Your task to perform on an android device: open app "Pinterest" (install if not already installed), go to login, and select forgot password Image 0: 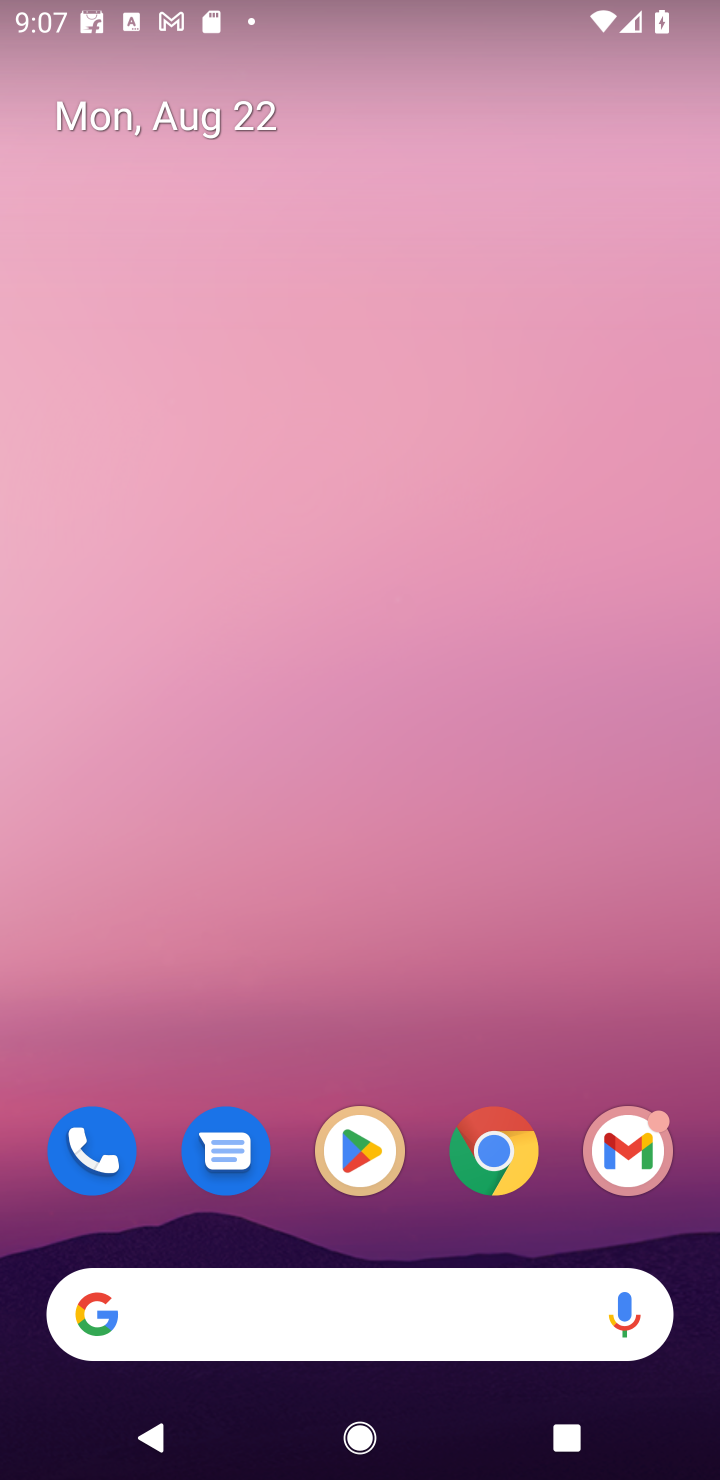
Step 0: press home button
Your task to perform on an android device: open app "Pinterest" (install if not already installed), go to login, and select forgot password Image 1: 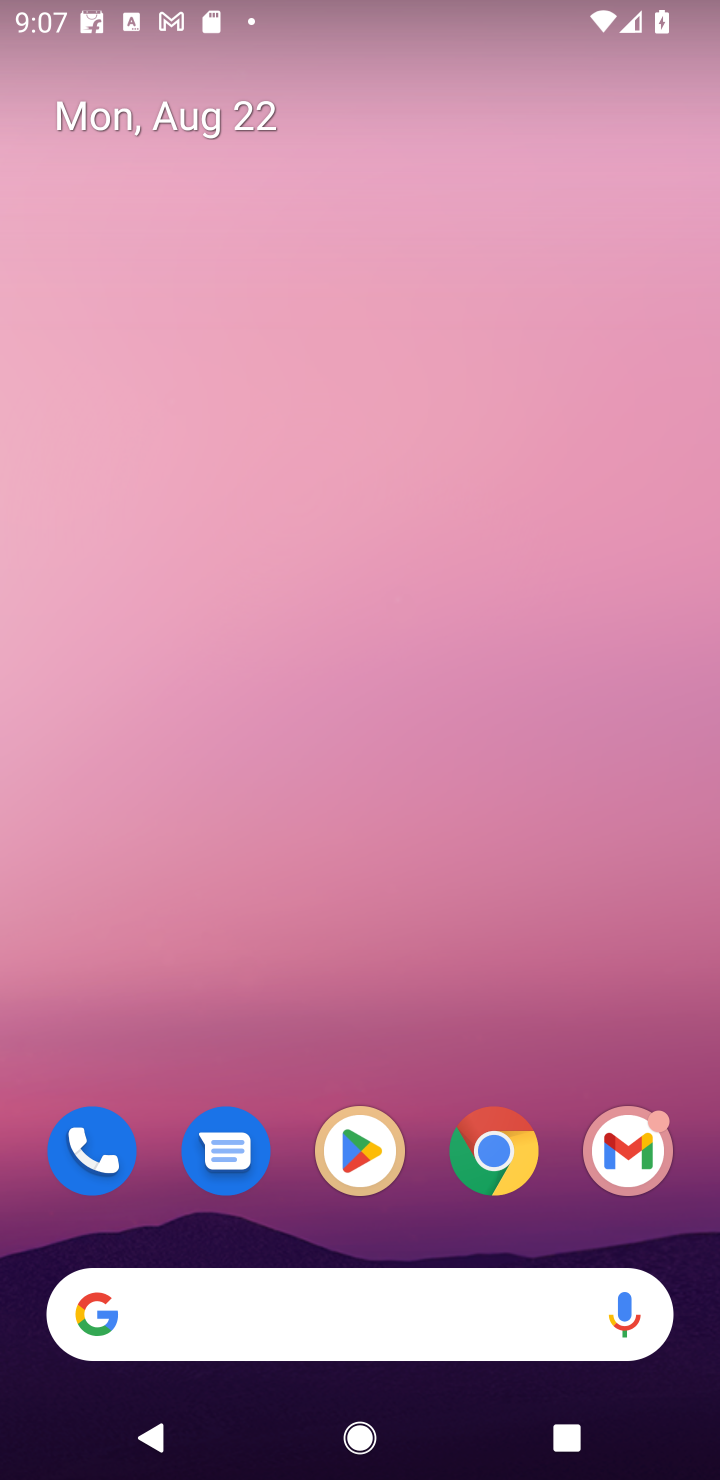
Step 1: click (363, 1151)
Your task to perform on an android device: open app "Pinterest" (install if not already installed), go to login, and select forgot password Image 2: 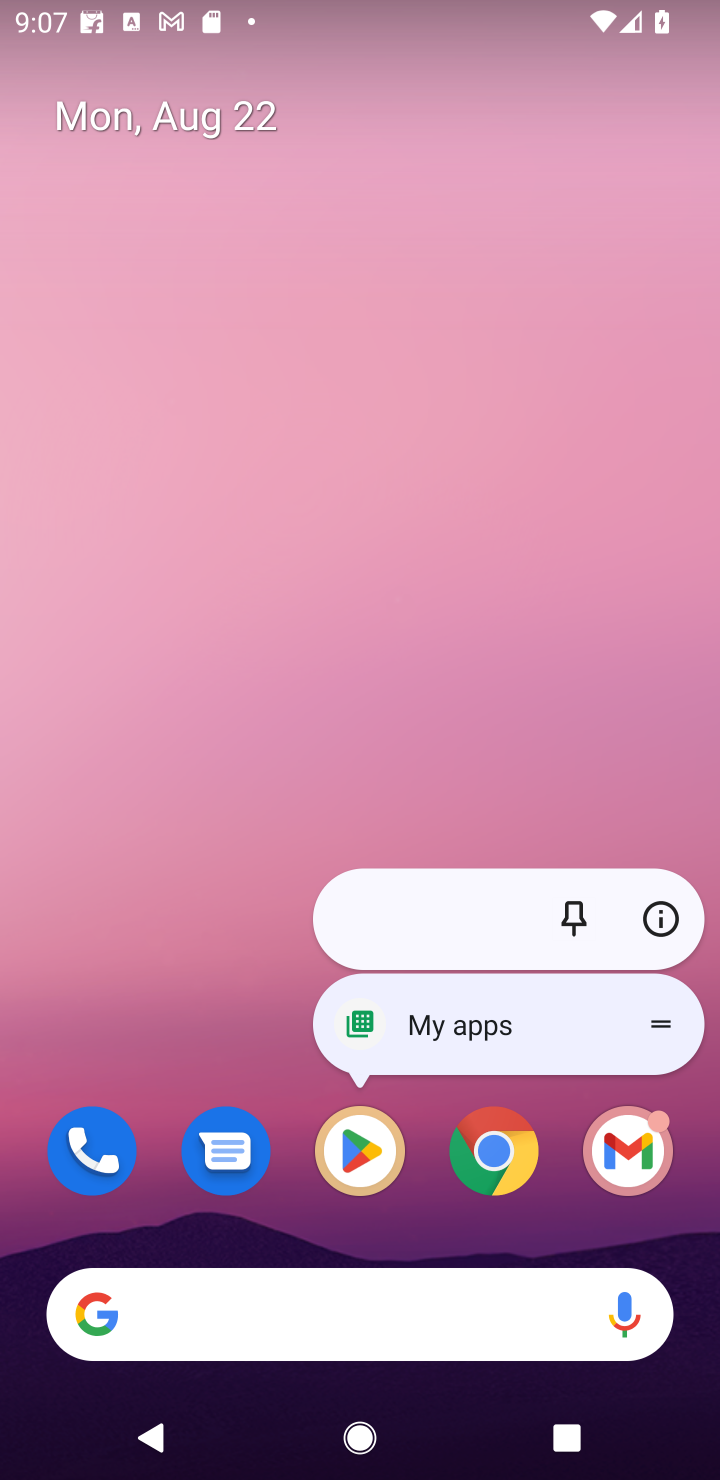
Step 2: click (363, 1155)
Your task to perform on an android device: open app "Pinterest" (install if not already installed), go to login, and select forgot password Image 3: 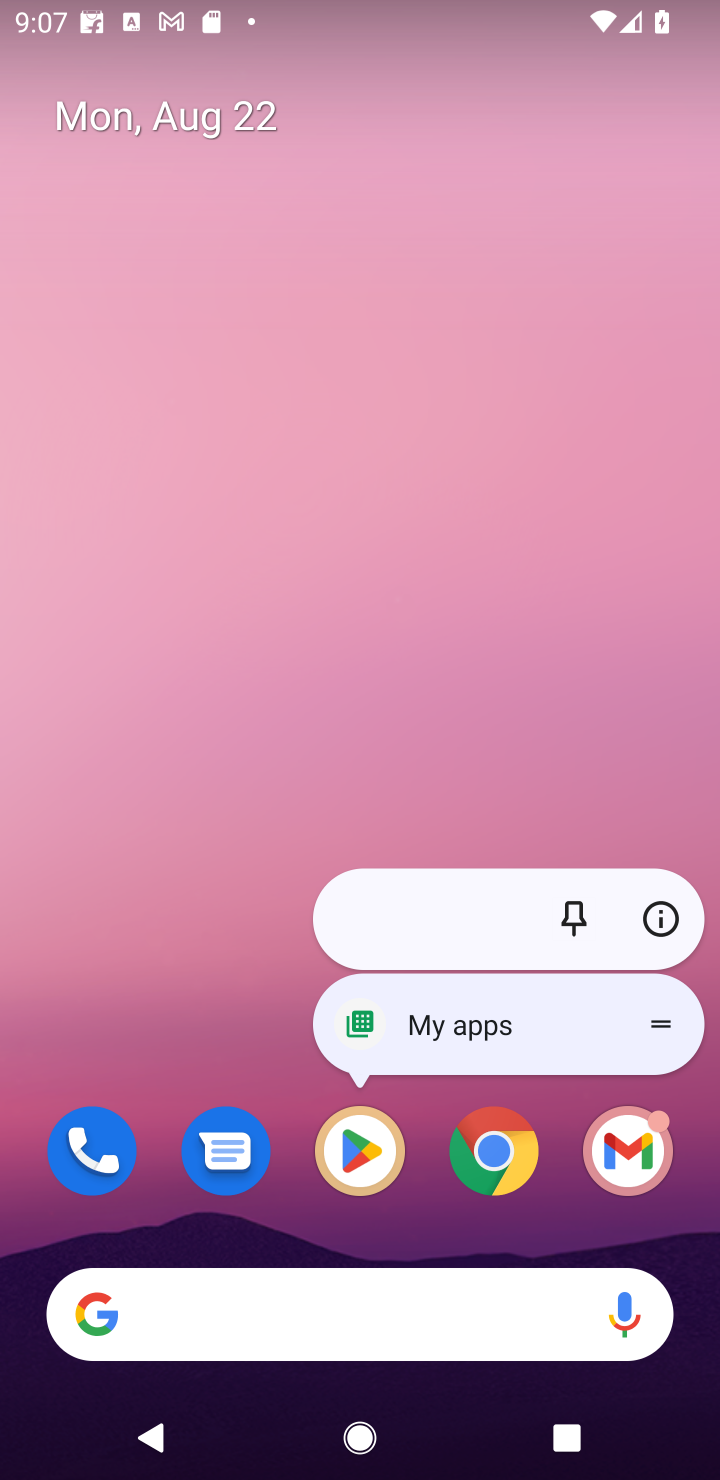
Step 3: click (363, 1162)
Your task to perform on an android device: open app "Pinterest" (install if not already installed), go to login, and select forgot password Image 4: 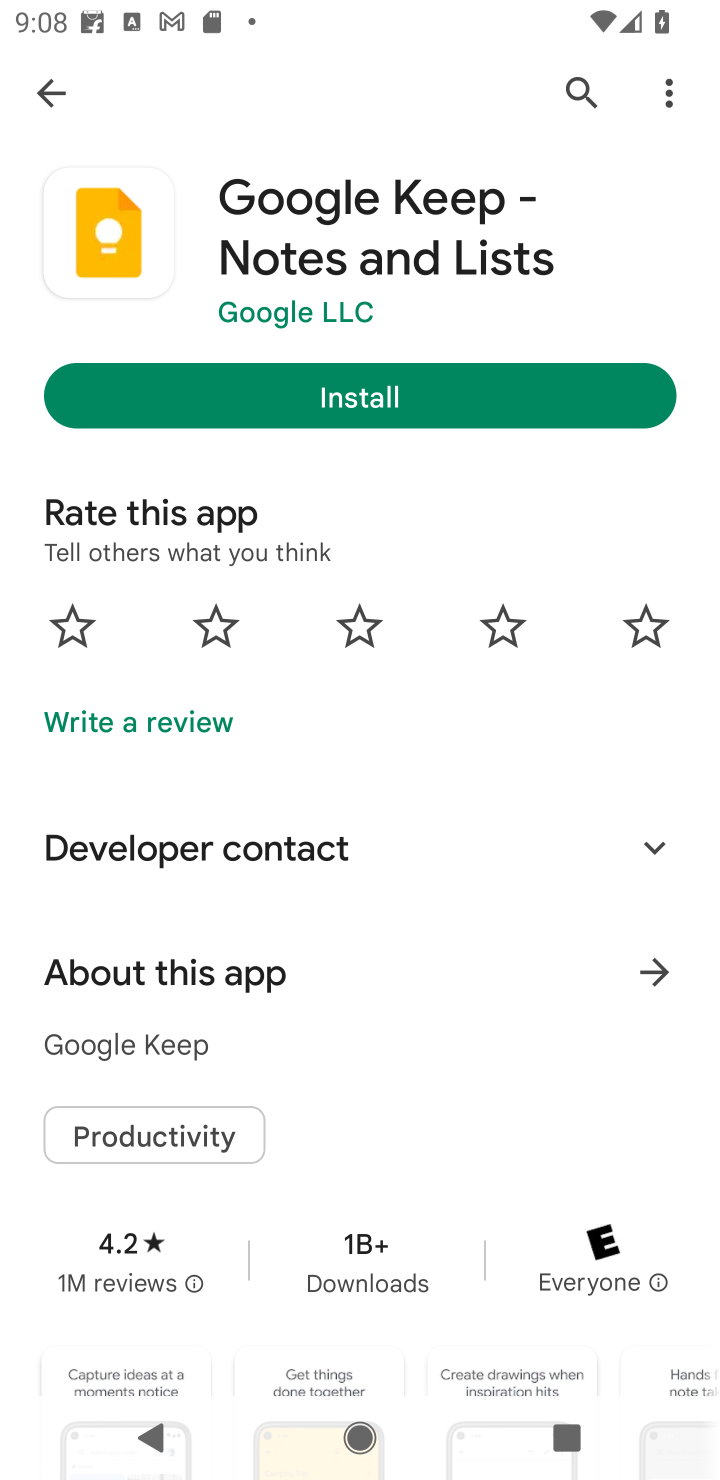
Step 4: click (577, 81)
Your task to perform on an android device: open app "Pinterest" (install if not already installed), go to login, and select forgot password Image 5: 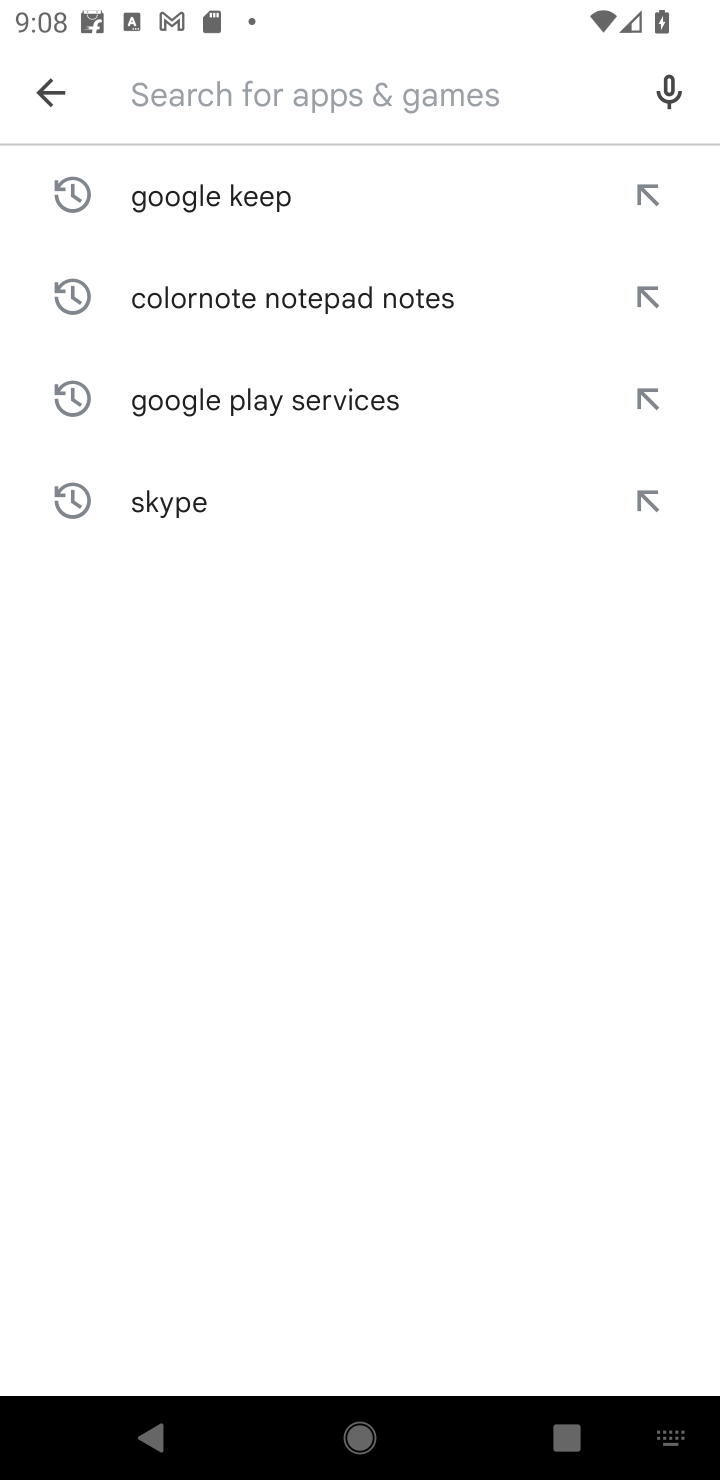
Step 5: type "Pinterest"
Your task to perform on an android device: open app "Pinterest" (install if not already installed), go to login, and select forgot password Image 6: 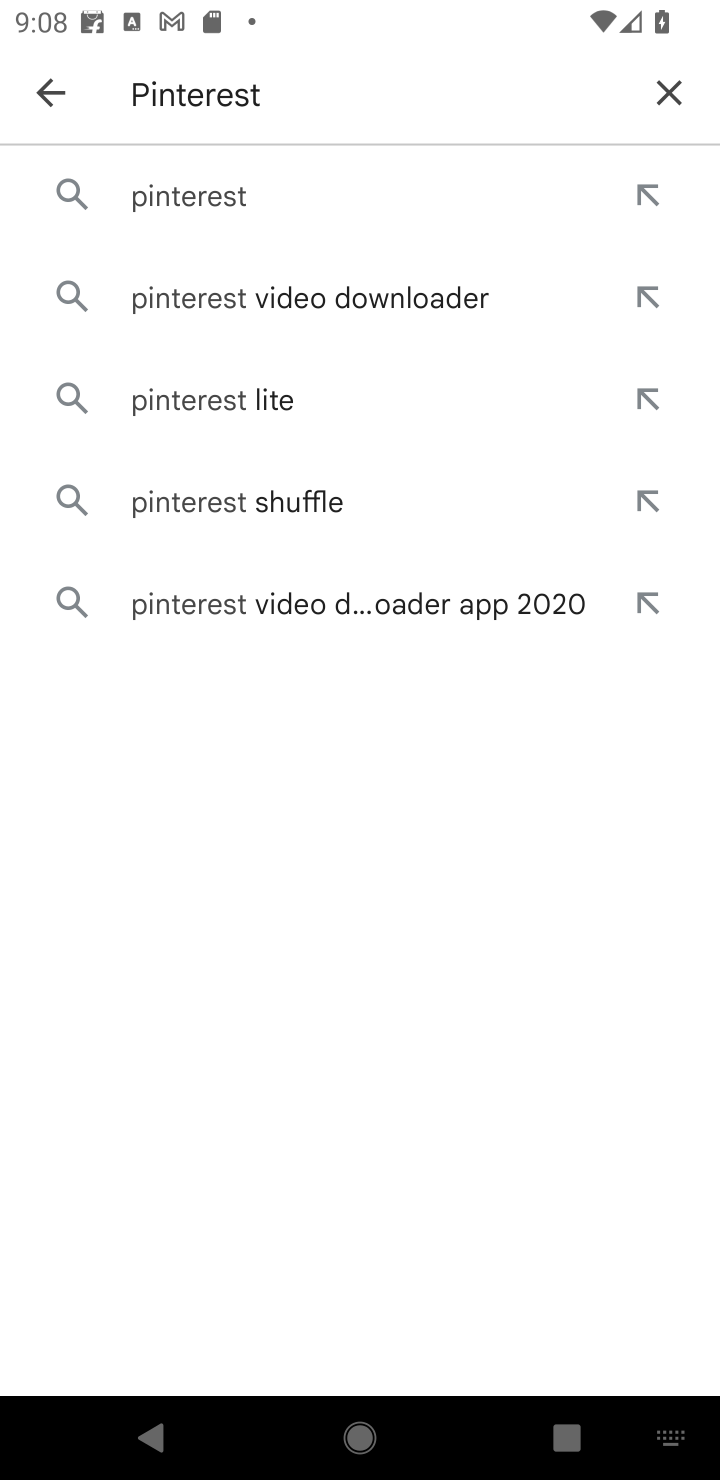
Step 6: click (170, 189)
Your task to perform on an android device: open app "Pinterest" (install if not already installed), go to login, and select forgot password Image 7: 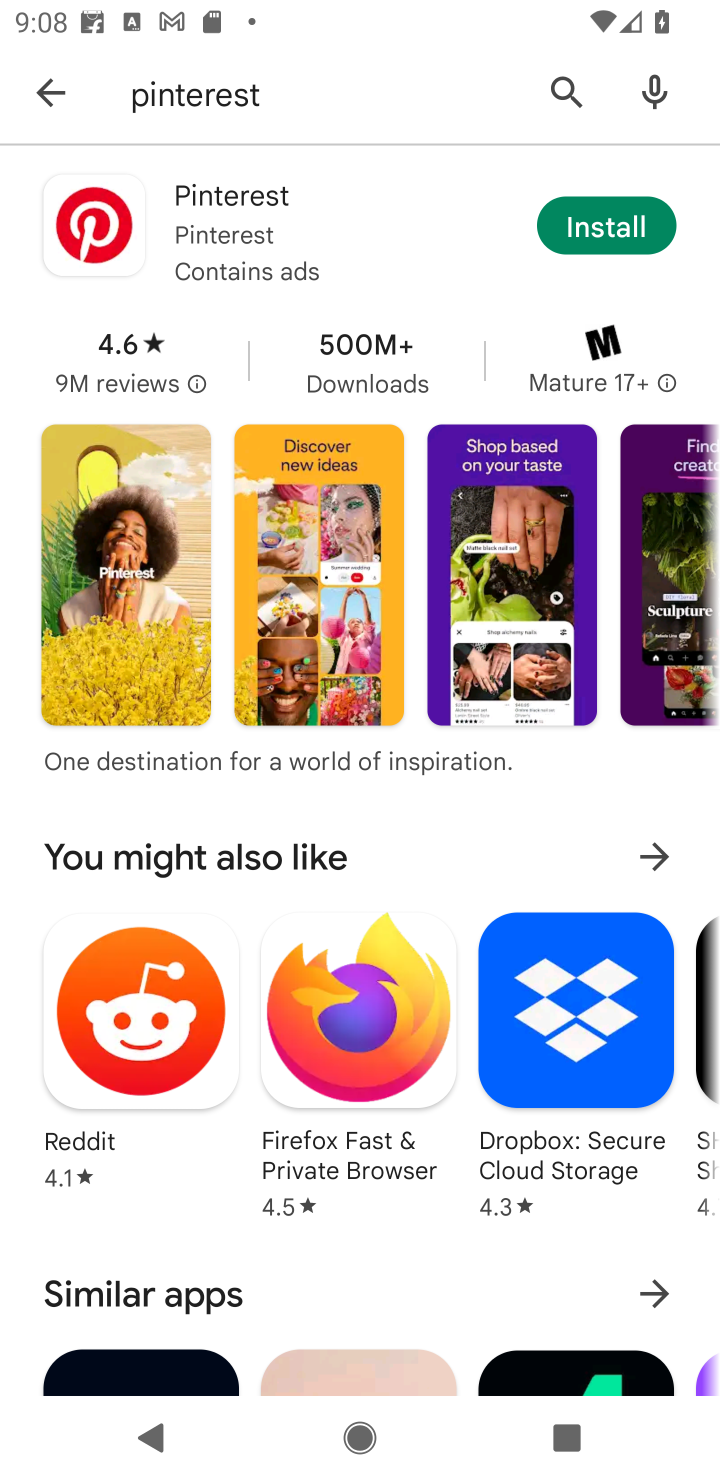
Step 7: click (622, 223)
Your task to perform on an android device: open app "Pinterest" (install if not already installed), go to login, and select forgot password Image 8: 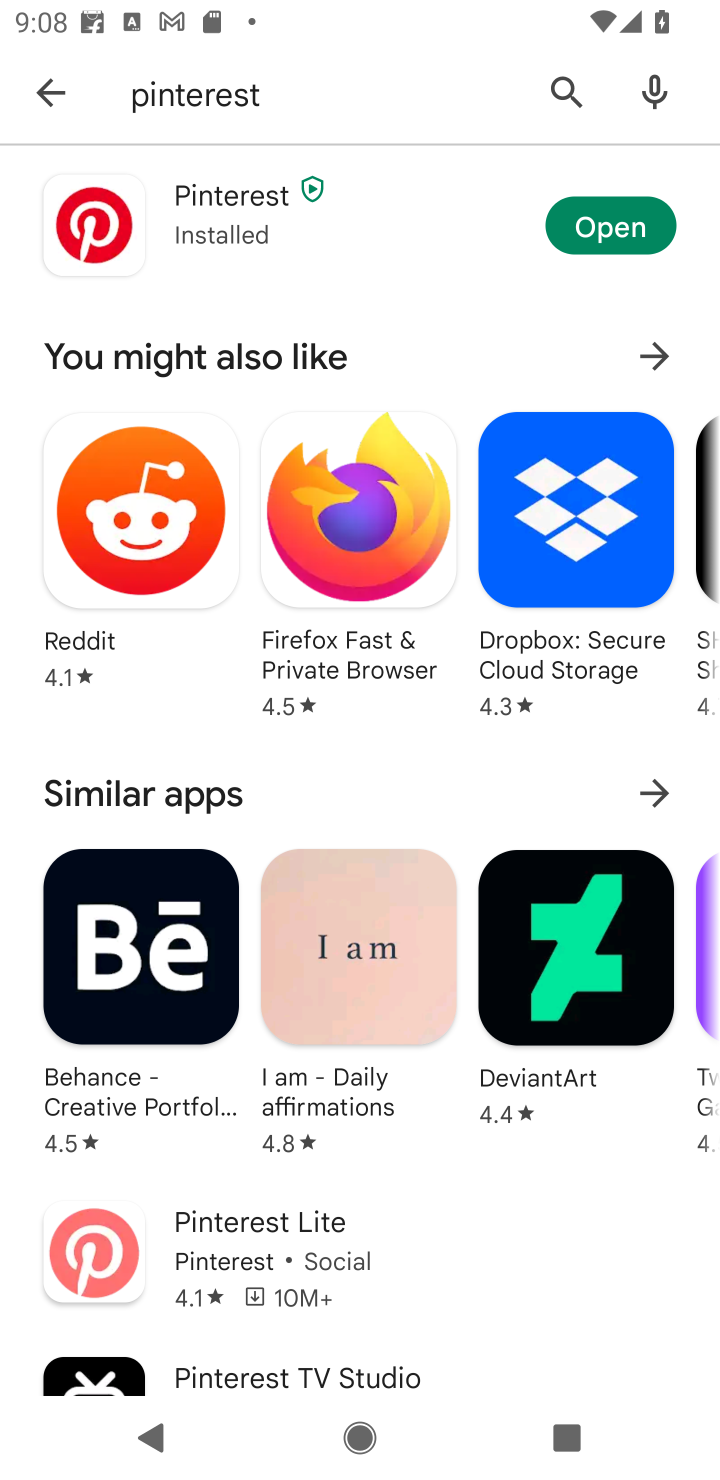
Step 8: click (636, 233)
Your task to perform on an android device: open app "Pinterest" (install if not already installed), go to login, and select forgot password Image 9: 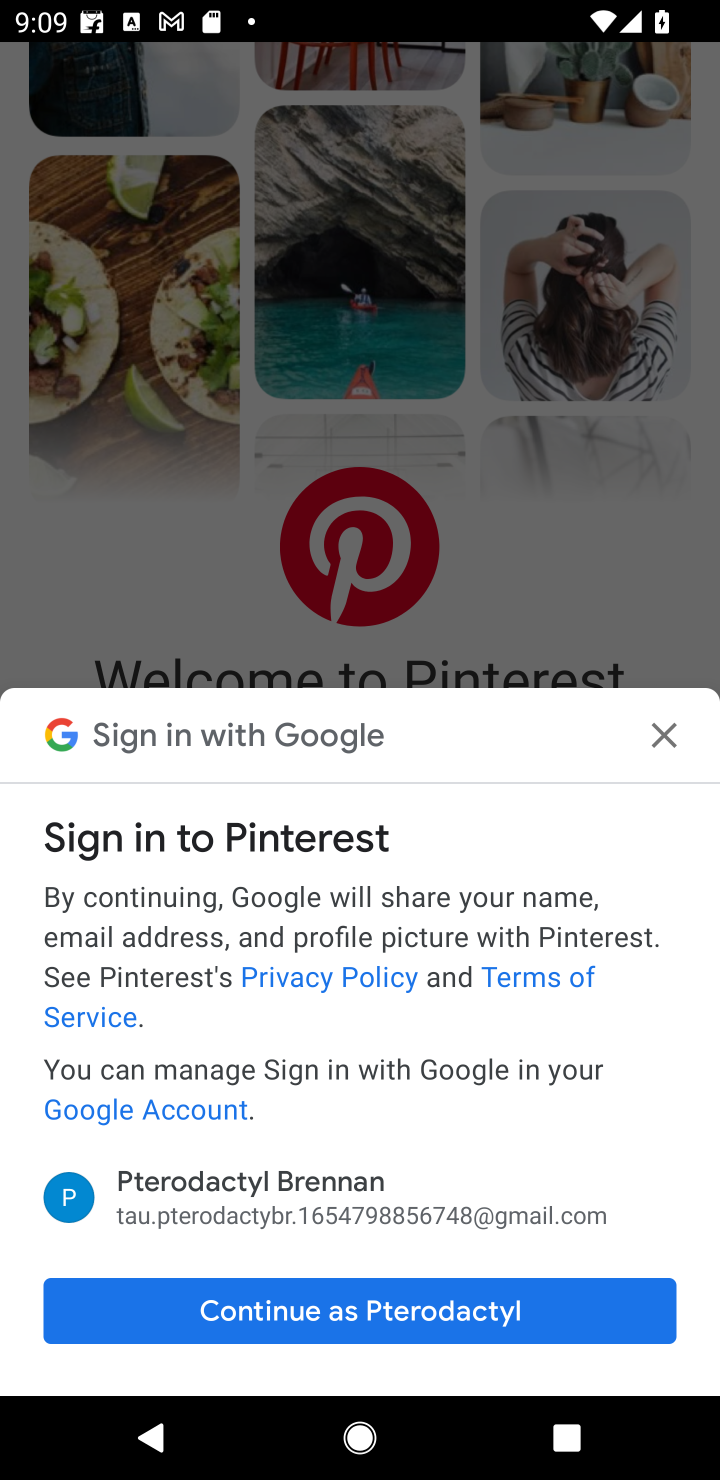
Step 9: task complete